Your task to perform on an android device: turn on bluetooth scan Image 0: 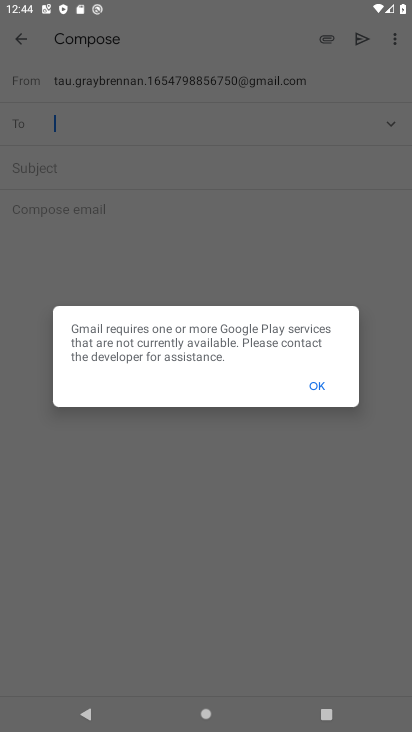
Step 0: click (324, 390)
Your task to perform on an android device: turn on bluetooth scan Image 1: 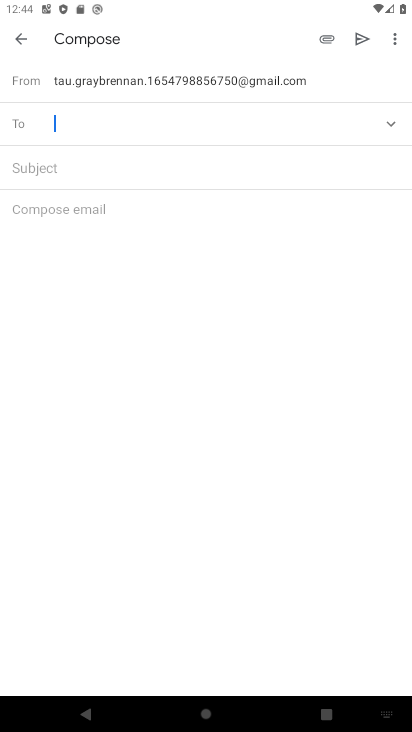
Step 1: press home button
Your task to perform on an android device: turn on bluetooth scan Image 2: 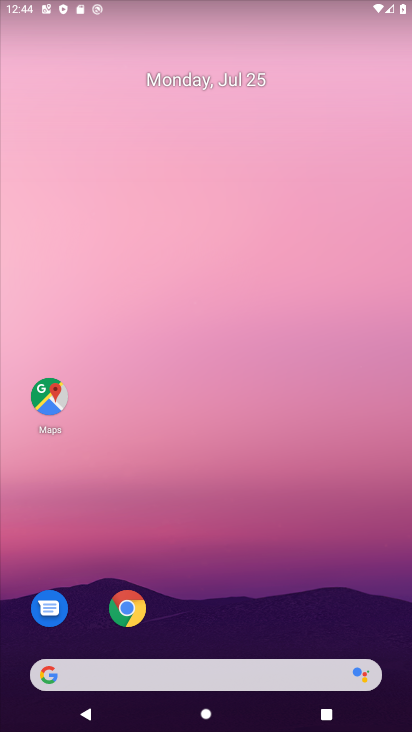
Step 2: drag from (215, 367) to (228, 60)
Your task to perform on an android device: turn on bluetooth scan Image 3: 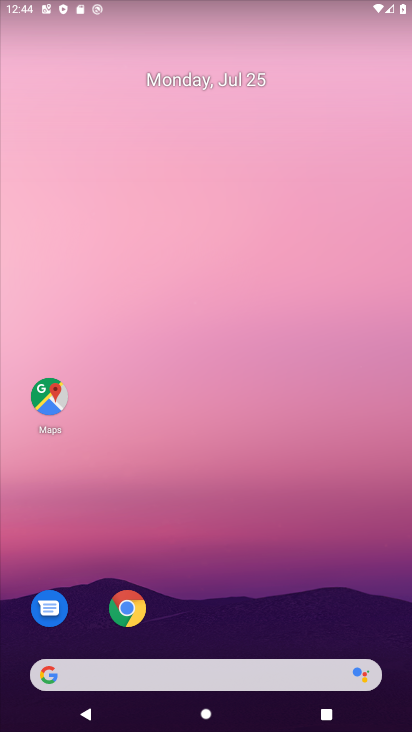
Step 3: drag from (281, 608) to (230, 12)
Your task to perform on an android device: turn on bluetooth scan Image 4: 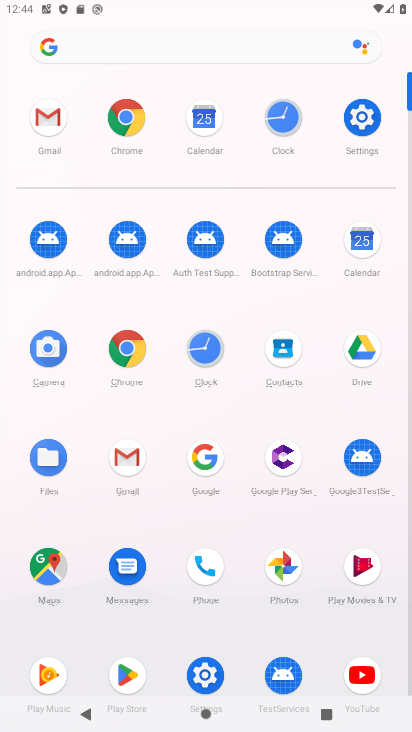
Step 4: click (353, 123)
Your task to perform on an android device: turn on bluetooth scan Image 5: 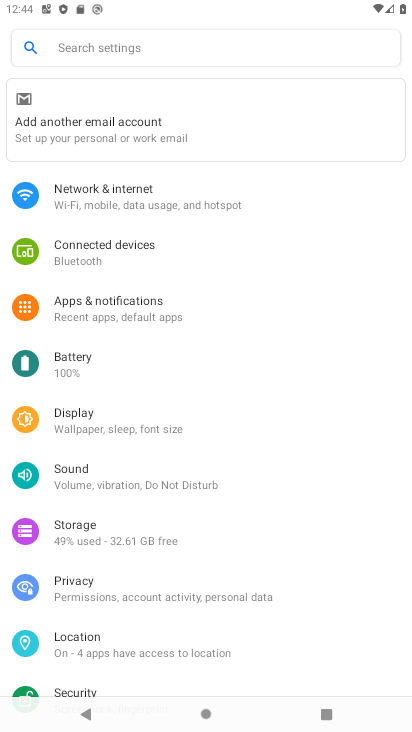
Step 5: click (112, 644)
Your task to perform on an android device: turn on bluetooth scan Image 6: 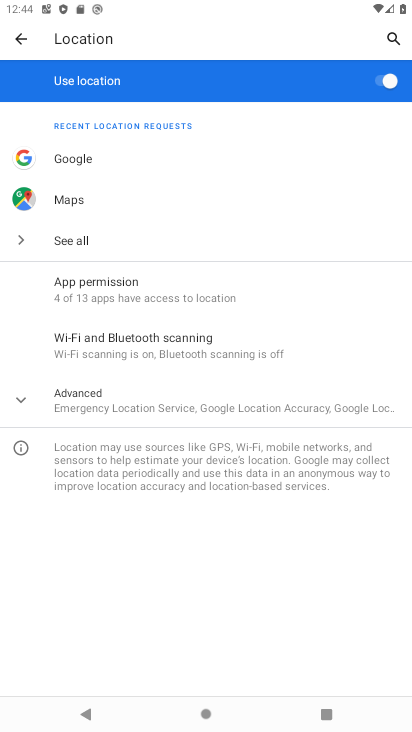
Step 6: click (126, 341)
Your task to perform on an android device: turn on bluetooth scan Image 7: 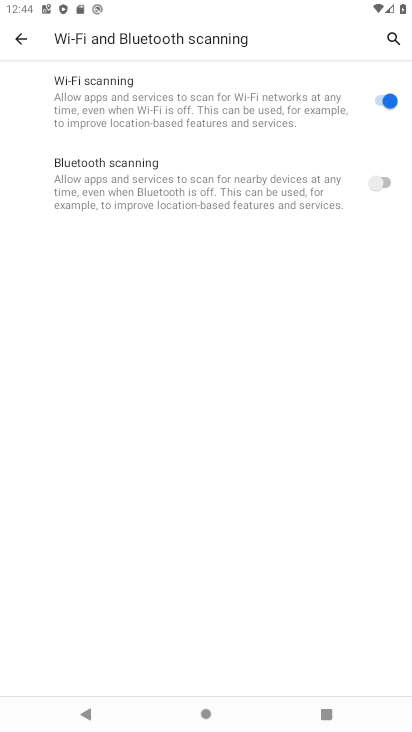
Step 7: click (368, 187)
Your task to perform on an android device: turn on bluetooth scan Image 8: 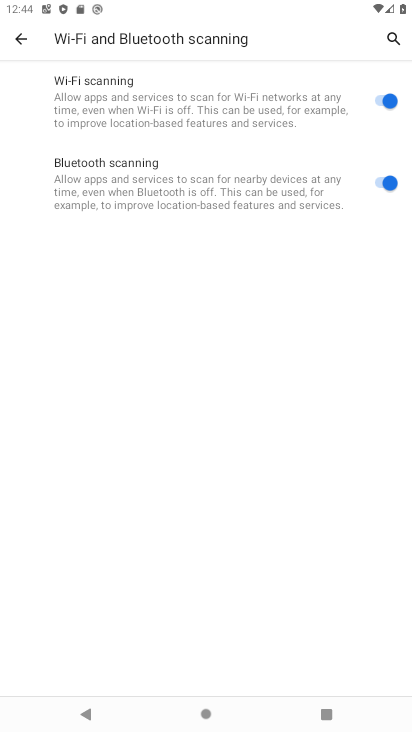
Step 8: task complete